Your task to perform on an android device: Search for vegetarian restaurants on Maps Image 0: 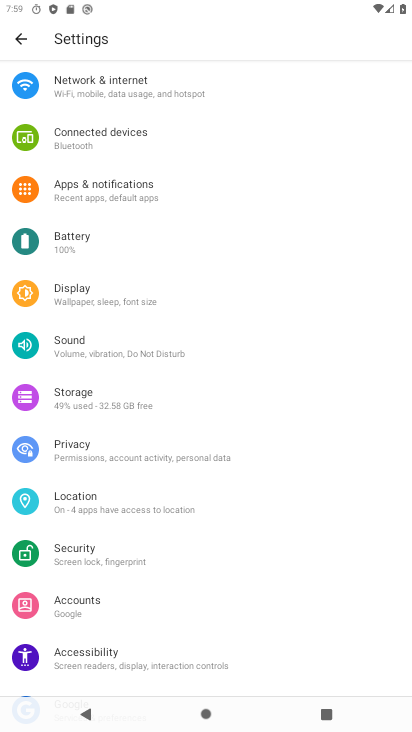
Step 0: press home button
Your task to perform on an android device: Search for vegetarian restaurants on Maps Image 1: 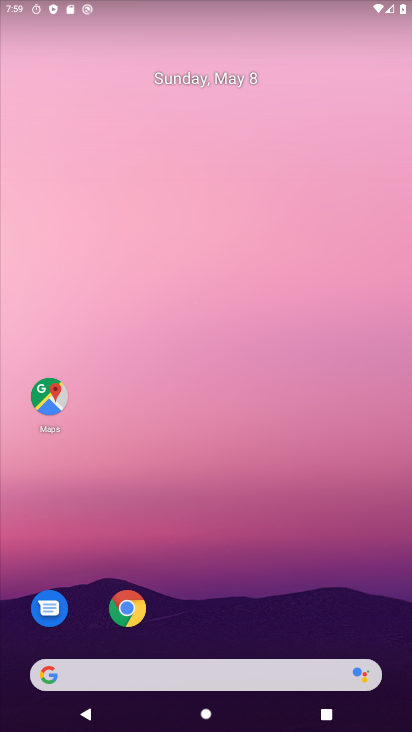
Step 1: click (43, 391)
Your task to perform on an android device: Search for vegetarian restaurants on Maps Image 2: 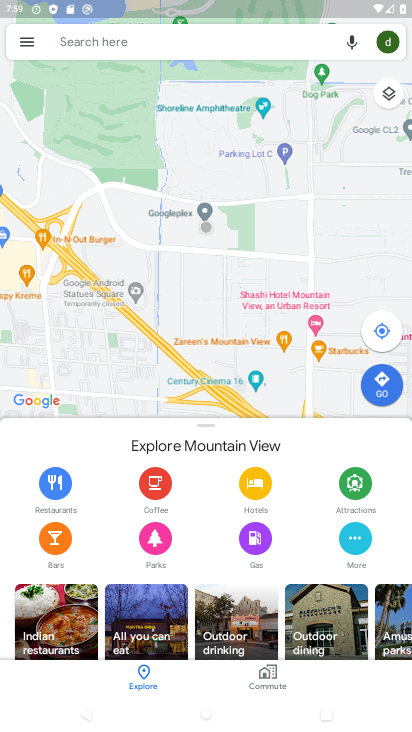
Step 2: click (136, 36)
Your task to perform on an android device: Search for vegetarian restaurants on Maps Image 3: 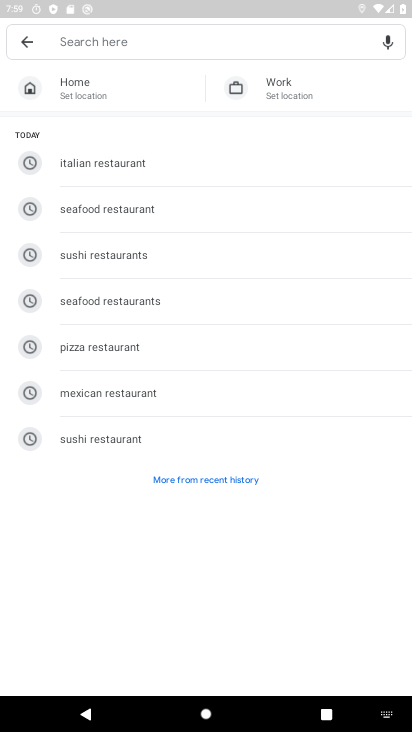
Step 3: type "vegetarian restaurants"
Your task to perform on an android device: Search for vegetarian restaurants on Maps Image 4: 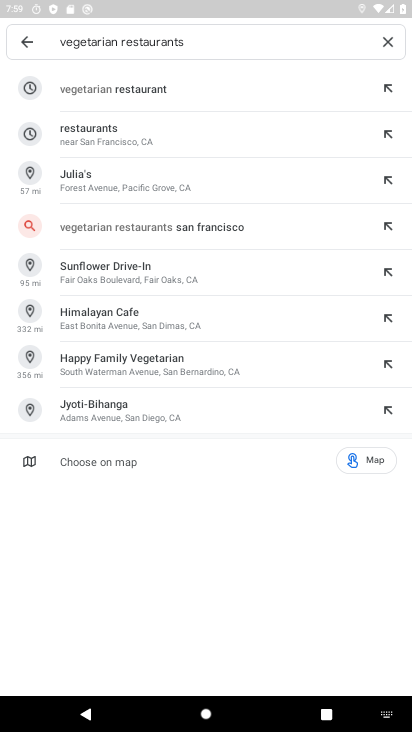
Step 4: click (116, 94)
Your task to perform on an android device: Search for vegetarian restaurants on Maps Image 5: 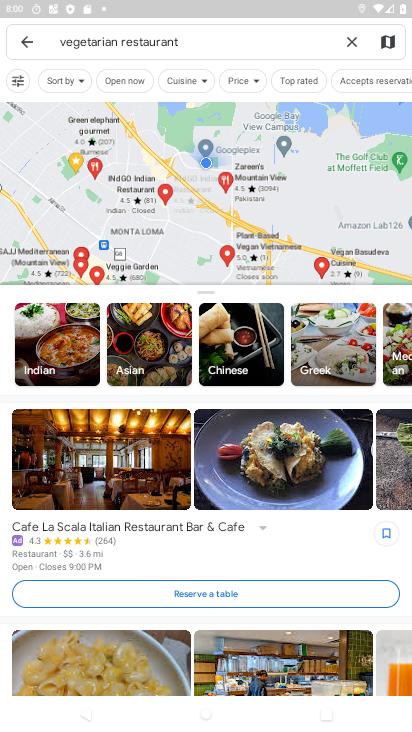
Step 5: task complete